Your task to perform on an android device: Check the news Image 0: 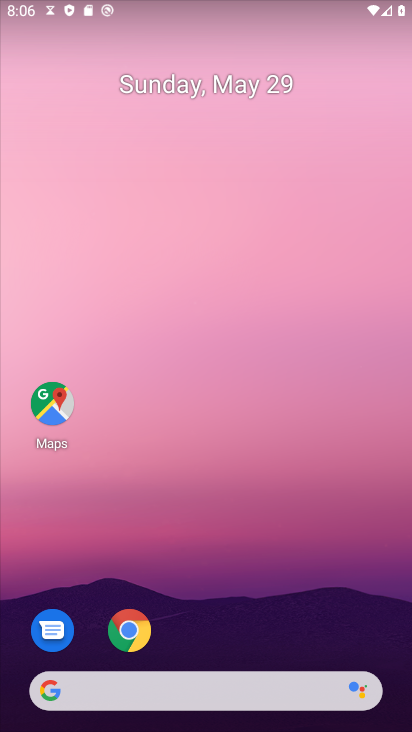
Step 0: click (206, 687)
Your task to perform on an android device: Check the news Image 1: 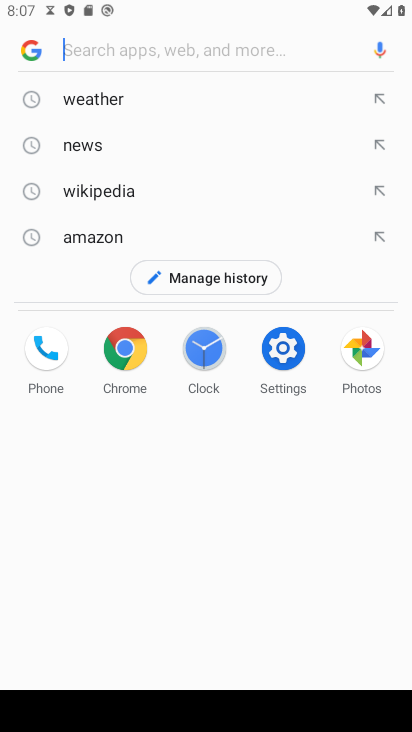
Step 1: click (92, 151)
Your task to perform on an android device: Check the news Image 2: 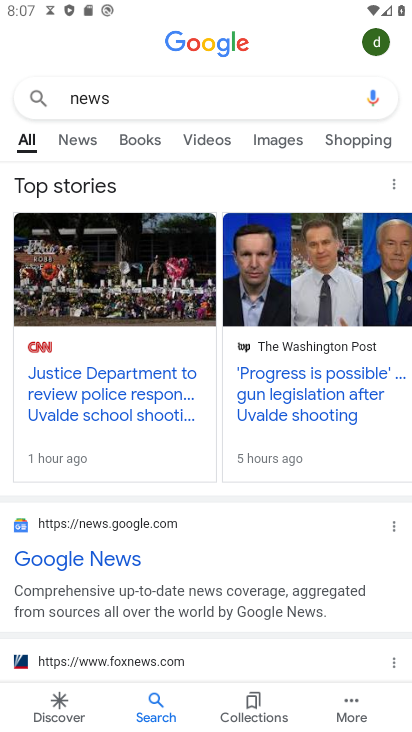
Step 2: click (80, 139)
Your task to perform on an android device: Check the news Image 3: 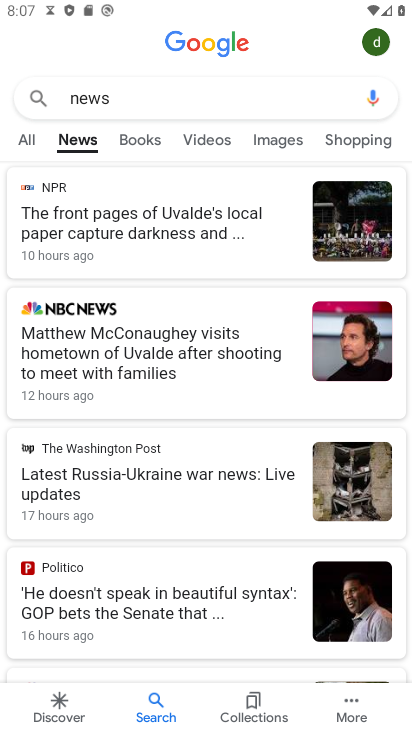
Step 3: task complete